Your task to perform on an android device: turn off airplane mode Image 0: 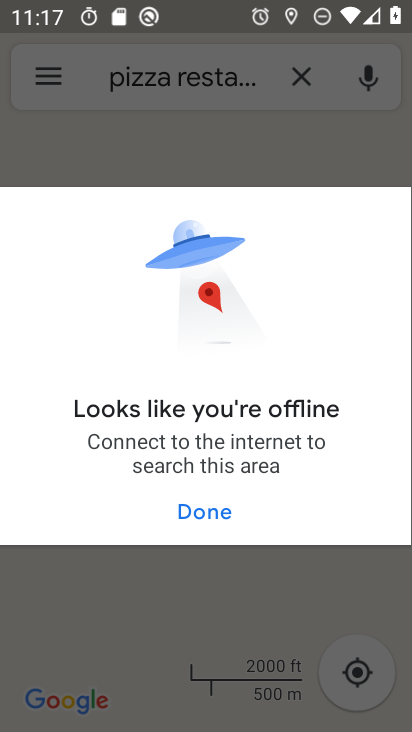
Step 0: press home button
Your task to perform on an android device: turn off airplane mode Image 1: 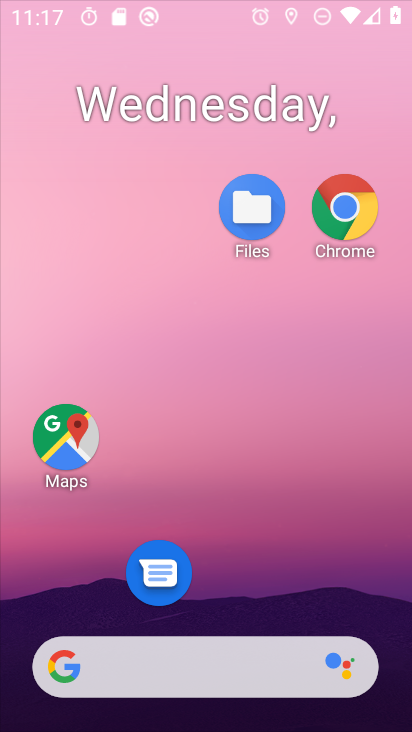
Step 1: drag from (237, 560) to (273, 121)
Your task to perform on an android device: turn off airplane mode Image 2: 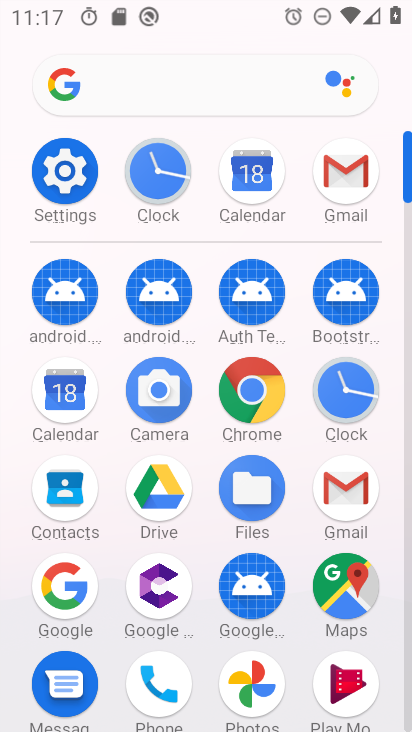
Step 2: click (70, 195)
Your task to perform on an android device: turn off airplane mode Image 3: 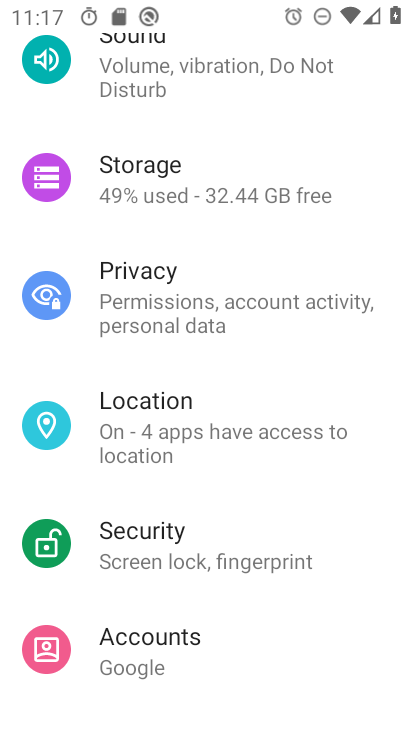
Step 3: drag from (217, 317) to (223, 578)
Your task to perform on an android device: turn off airplane mode Image 4: 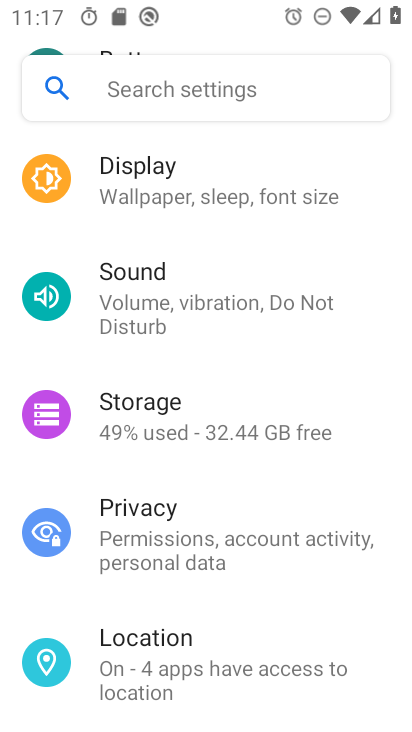
Step 4: drag from (187, 348) to (175, 663)
Your task to perform on an android device: turn off airplane mode Image 5: 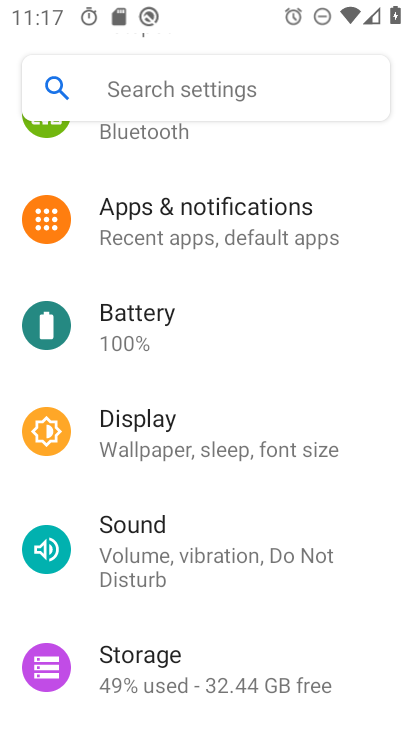
Step 5: drag from (152, 324) to (163, 653)
Your task to perform on an android device: turn off airplane mode Image 6: 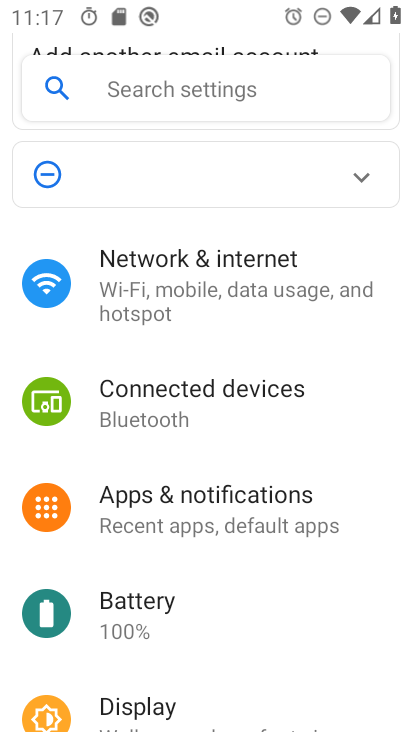
Step 6: click (160, 315)
Your task to perform on an android device: turn off airplane mode Image 7: 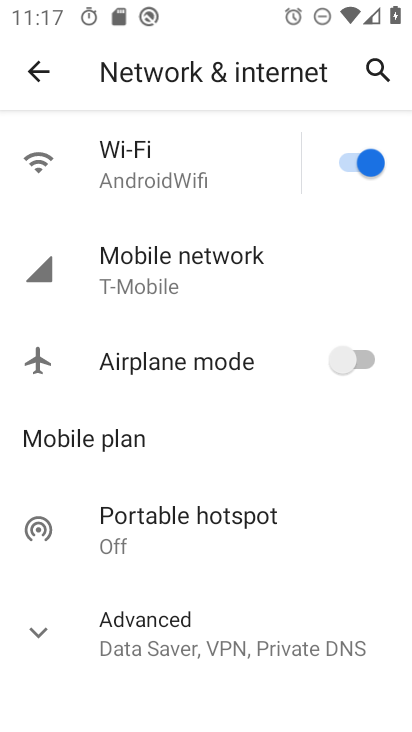
Step 7: task complete